Your task to perform on an android device: allow cookies in the chrome app Image 0: 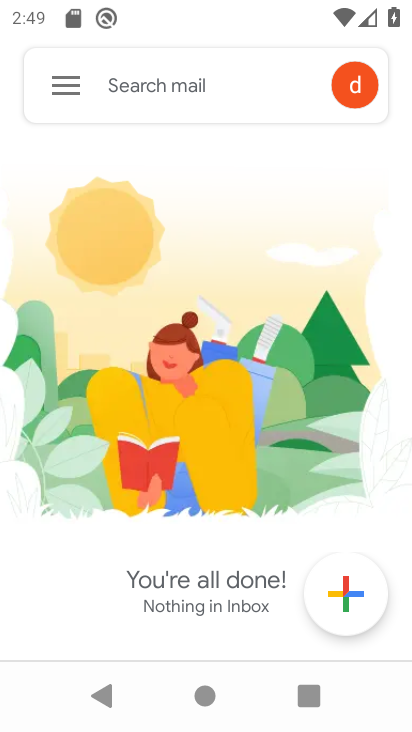
Step 0: press home button
Your task to perform on an android device: allow cookies in the chrome app Image 1: 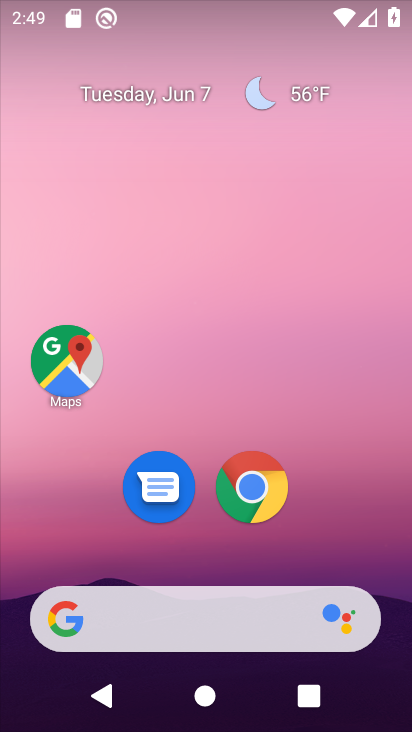
Step 1: click (265, 490)
Your task to perform on an android device: allow cookies in the chrome app Image 2: 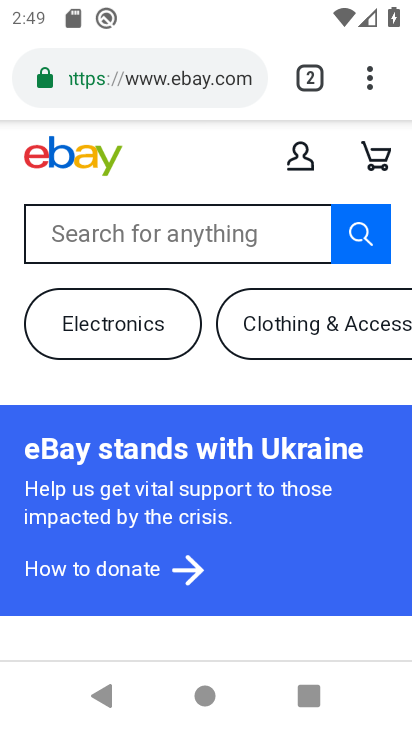
Step 2: click (378, 67)
Your task to perform on an android device: allow cookies in the chrome app Image 3: 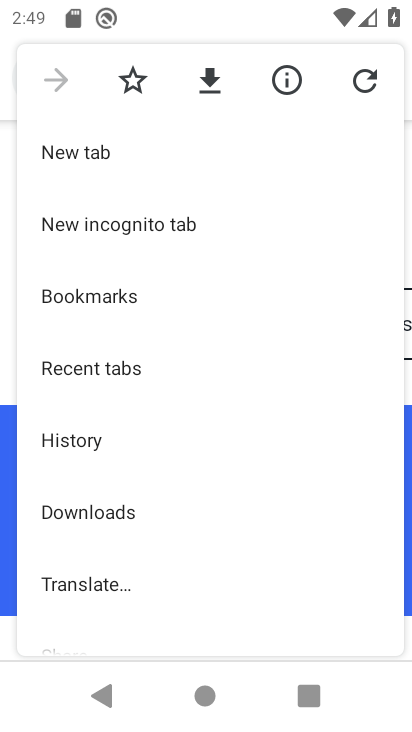
Step 3: drag from (249, 570) to (209, 211)
Your task to perform on an android device: allow cookies in the chrome app Image 4: 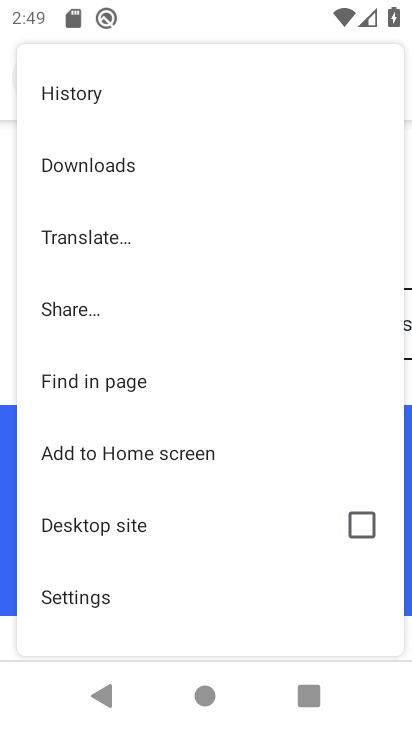
Step 4: click (176, 594)
Your task to perform on an android device: allow cookies in the chrome app Image 5: 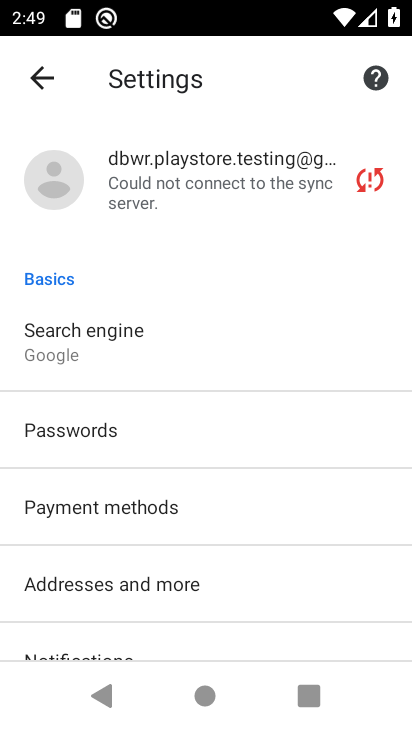
Step 5: drag from (239, 620) to (159, 65)
Your task to perform on an android device: allow cookies in the chrome app Image 6: 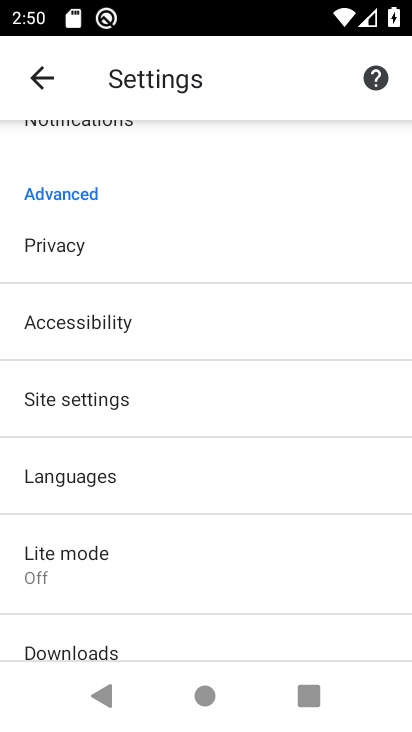
Step 6: click (160, 392)
Your task to perform on an android device: allow cookies in the chrome app Image 7: 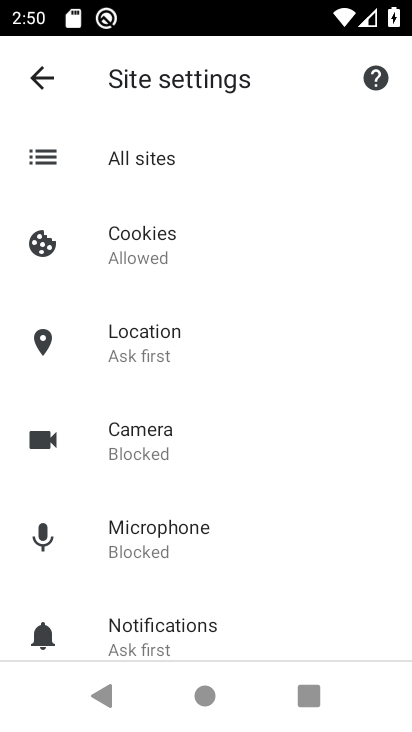
Step 7: click (177, 256)
Your task to perform on an android device: allow cookies in the chrome app Image 8: 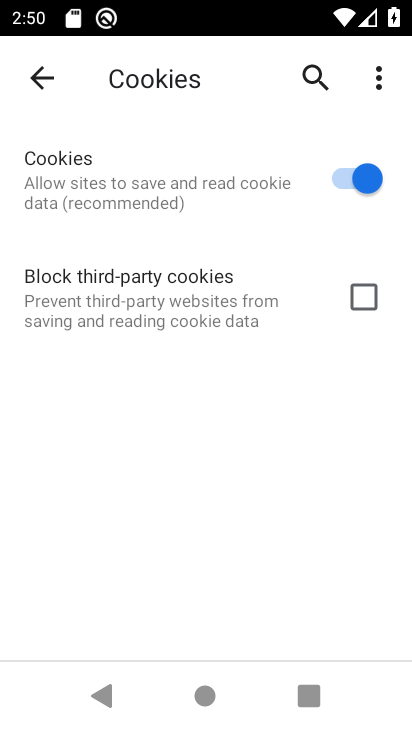
Step 8: task complete